Your task to perform on an android device: toggle wifi Image 0: 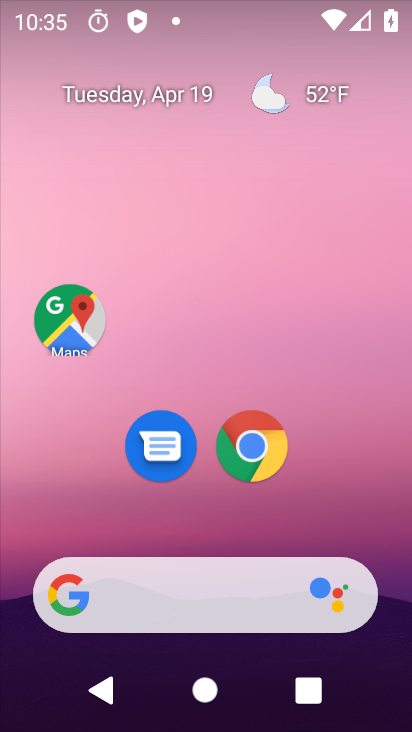
Step 0: drag from (362, 175) to (358, 112)
Your task to perform on an android device: toggle wifi Image 1: 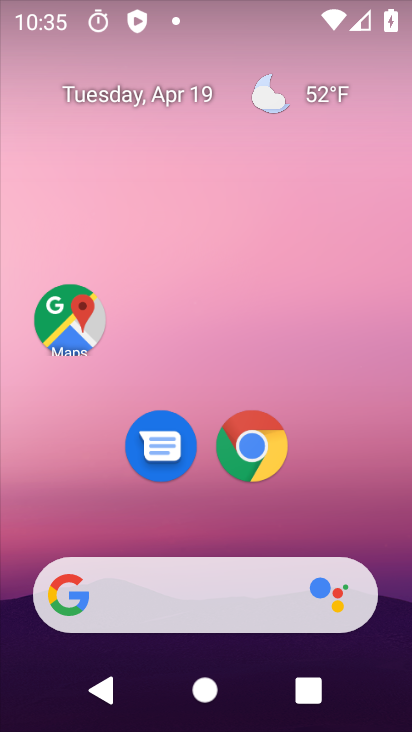
Step 1: drag from (339, 513) to (349, 180)
Your task to perform on an android device: toggle wifi Image 2: 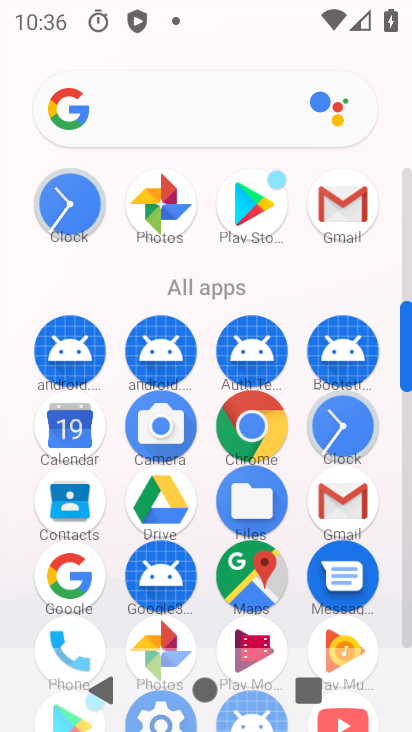
Step 2: click (217, 322)
Your task to perform on an android device: toggle wifi Image 3: 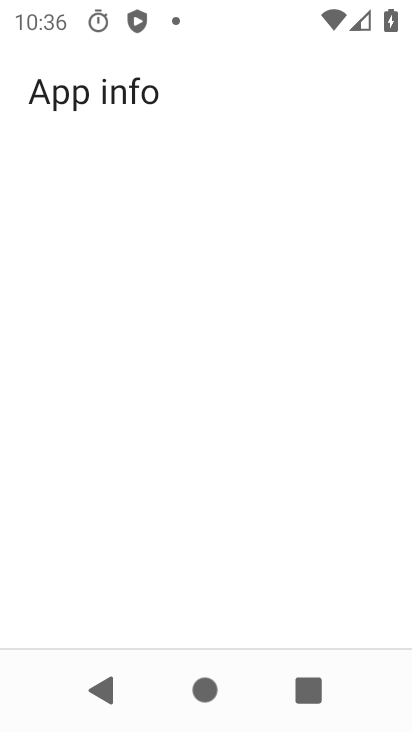
Step 3: drag from (200, 447) to (200, 346)
Your task to perform on an android device: toggle wifi Image 4: 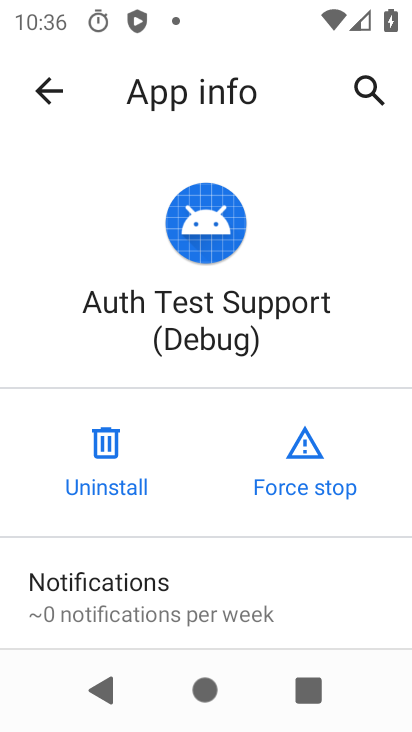
Step 4: click (46, 87)
Your task to perform on an android device: toggle wifi Image 5: 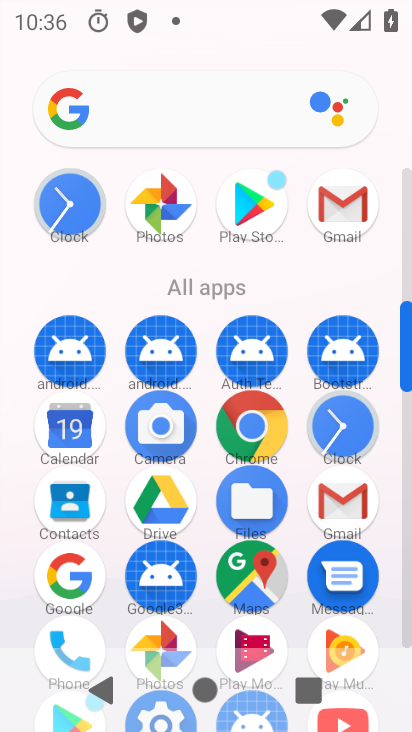
Step 5: drag from (406, 333) to (405, 224)
Your task to perform on an android device: toggle wifi Image 6: 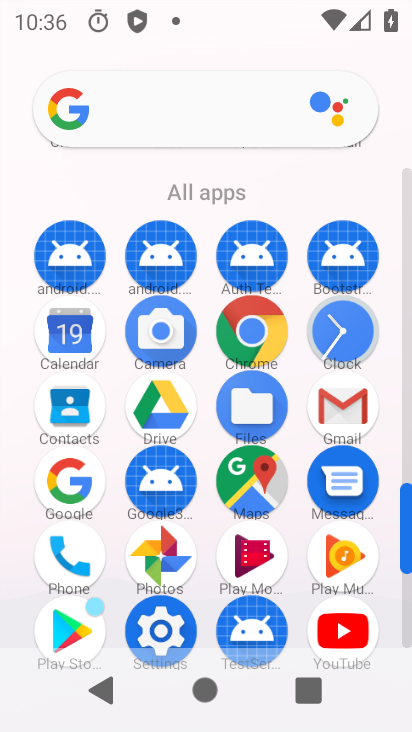
Step 6: click (167, 608)
Your task to perform on an android device: toggle wifi Image 7: 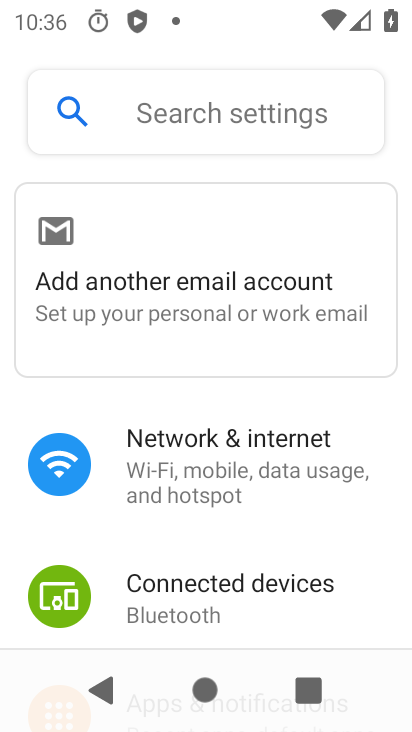
Step 7: click (167, 447)
Your task to perform on an android device: toggle wifi Image 8: 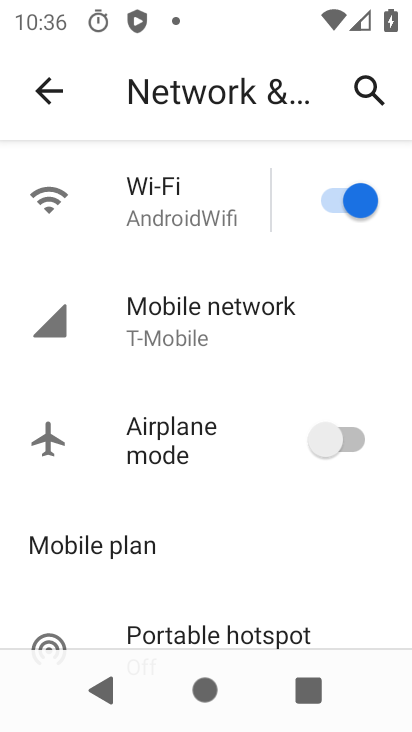
Step 8: click (329, 200)
Your task to perform on an android device: toggle wifi Image 9: 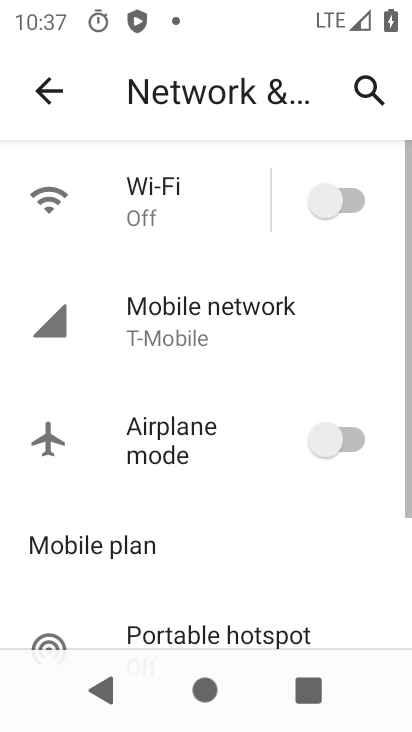
Step 9: task complete